Your task to perform on an android device: toggle wifi Image 0: 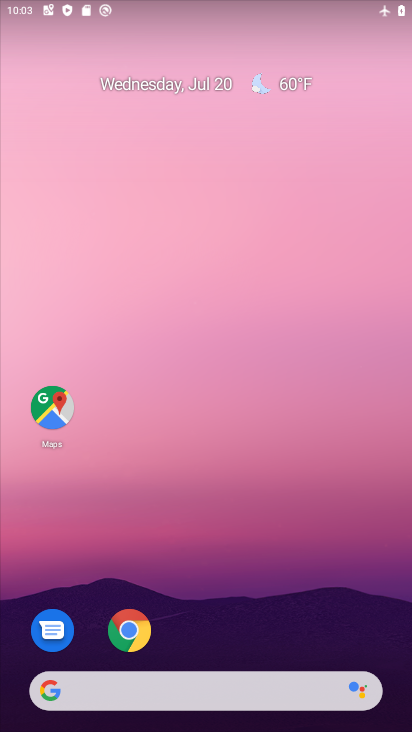
Step 0: drag from (206, 675) to (245, 232)
Your task to perform on an android device: toggle wifi Image 1: 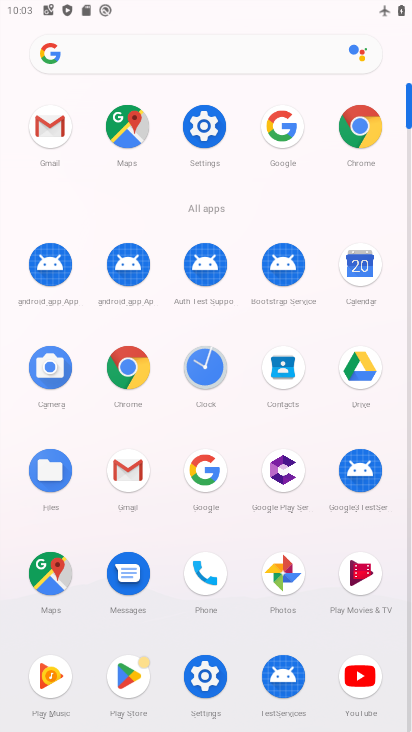
Step 1: click (200, 135)
Your task to perform on an android device: toggle wifi Image 2: 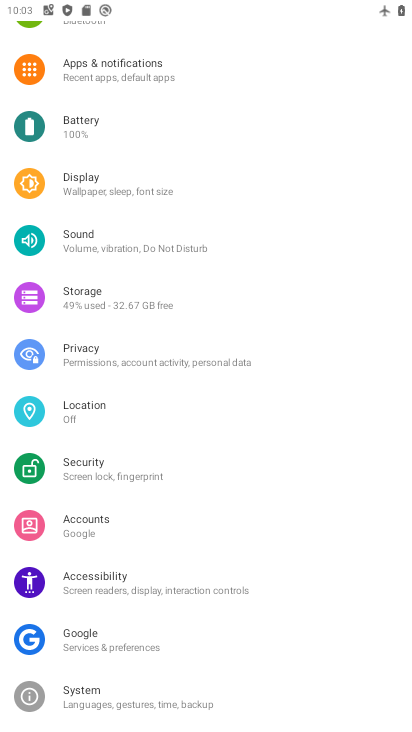
Step 2: drag from (111, 54) to (113, 454)
Your task to perform on an android device: toggle wifi Image 3: 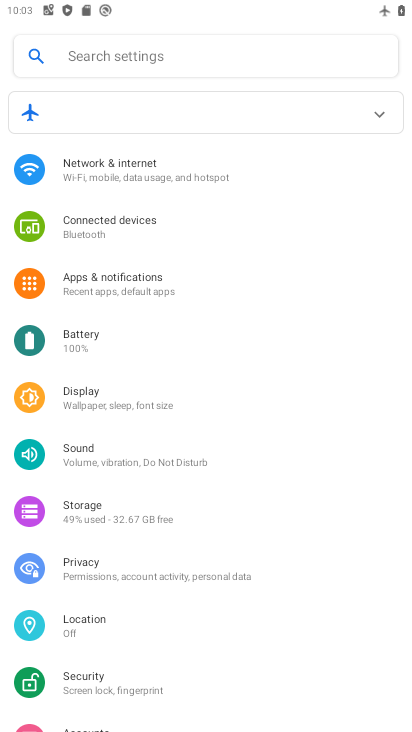
Step 3: click (116, 171)
Your task to perform on an android device: toggle wifi Image 4: 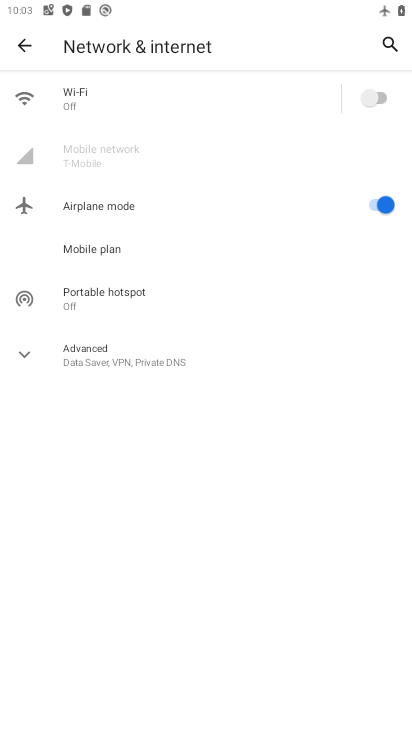
Step 4: click (376, 94)
Your task to perform on an android device: toggle wifi Image 5: 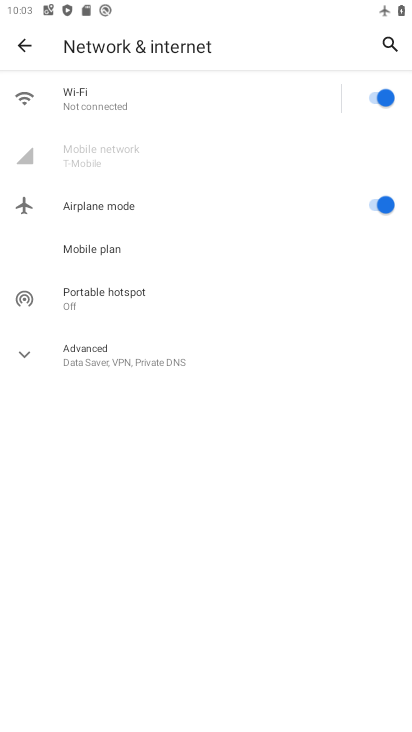
Step 5: task complete